Your task to perform on an android device: add a contact in the contacts app Image 0: 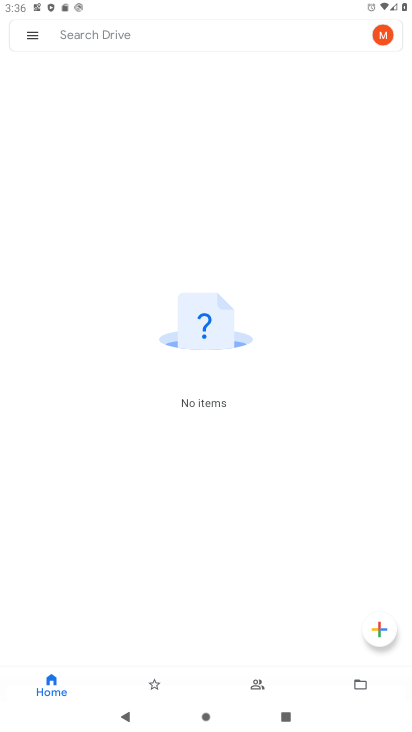
Step 0: press home button
Your task to perform on an android device: add a contact in the contacts app Image 1: 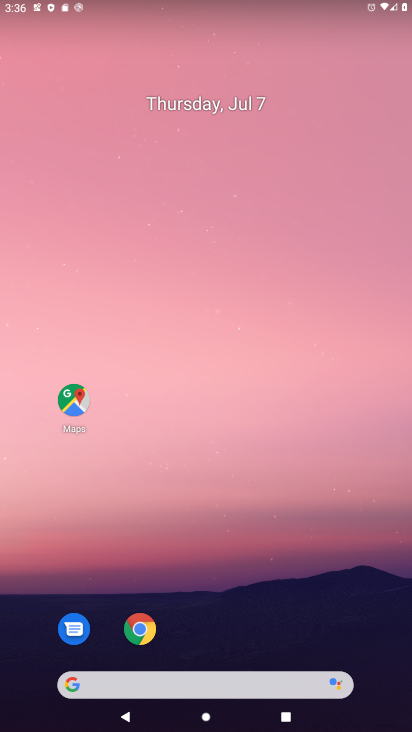
Step 1: drag from (198, 648) to (258, 163)
Your task to perform on an android device: add a contact in the contacts app Image 2: 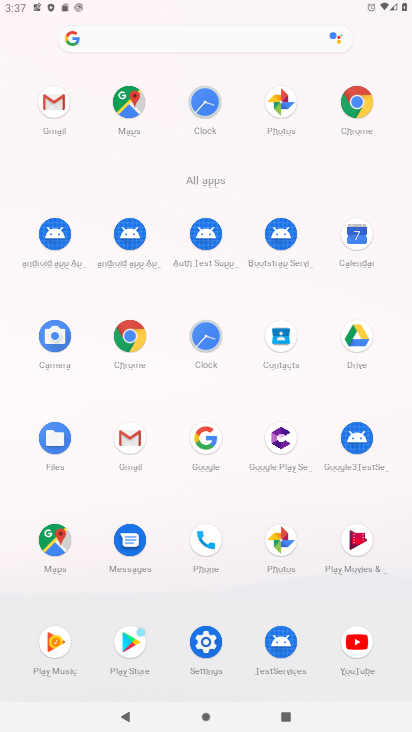
Step 2: click (274, 328)
Your task to perform on an android device: add a contact in the contacts app Image 3: 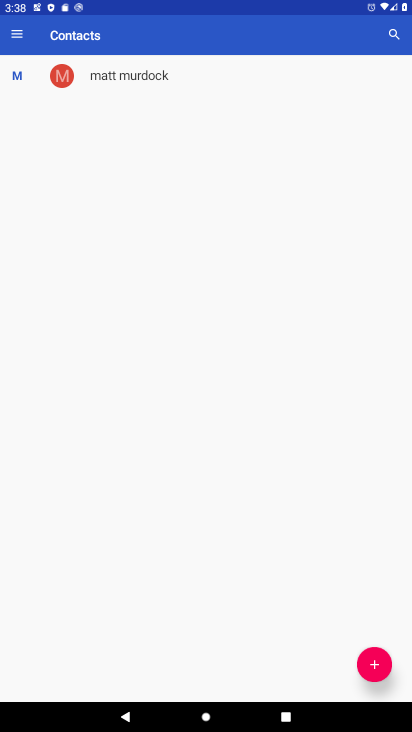
Step 3: click (375, 667)
Your task to perform on an android device: add a contact in the contacts app Image 4: 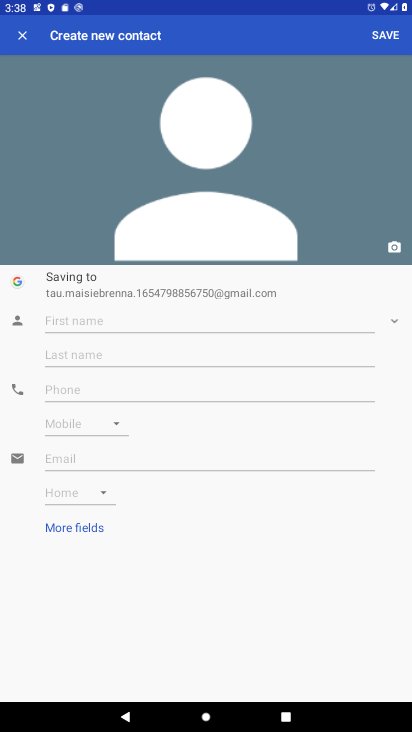
Step 4: click (86, 318)
Your task to perform on an android device: add a contact in the contacts app Image 5: 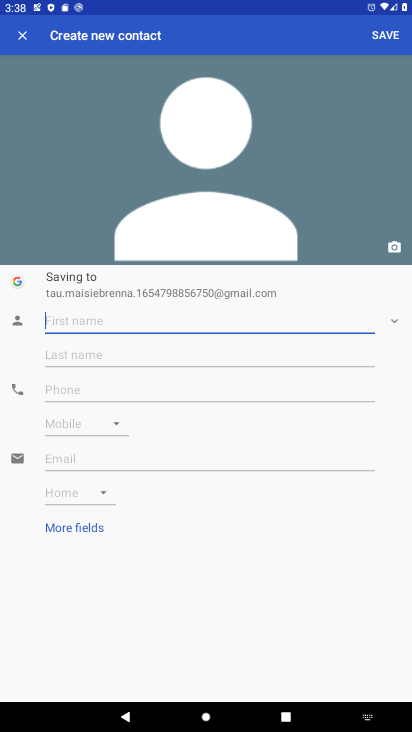
Step 5: type "oiujhgvc"
Your task to perform on an android device: add a contact in the contacts app Image 6: 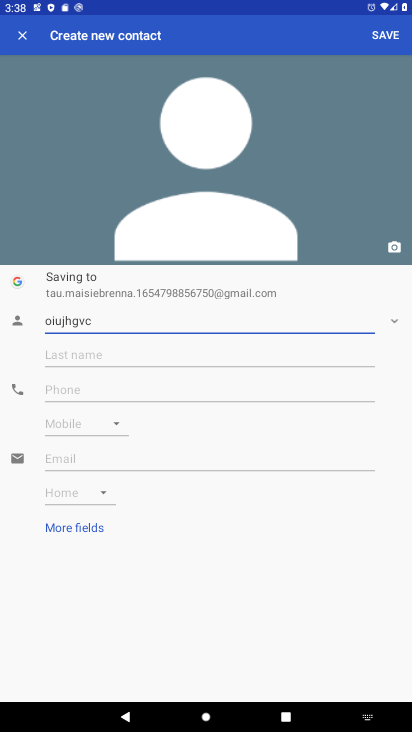
Step 6: click (71, 390)
Your task to perform on an android device: add a contact in the contacts app Image 7: 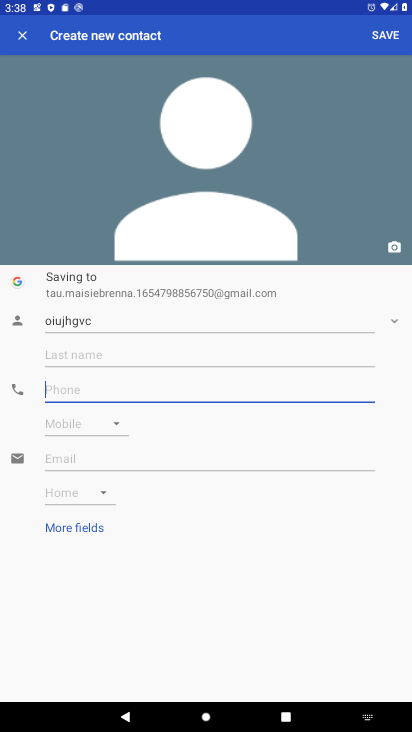
Step 7: type "234567890-"
Your task to perform on an android device: add a contact in the contacts app Image 8: 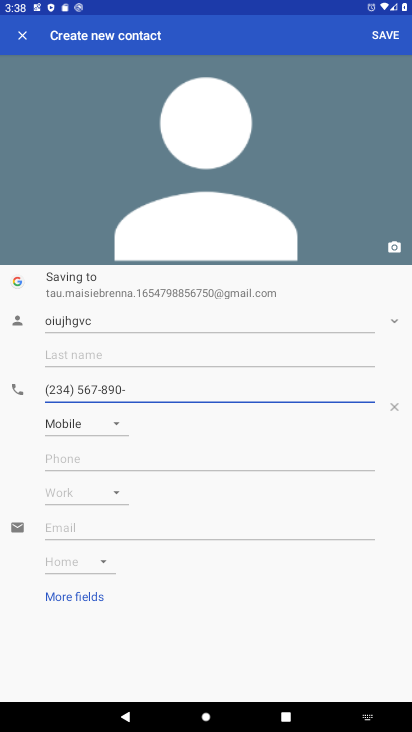
Step 8: click (389, 36)
Your task to perform on an android device: add a contact in the contacts app Image 9: 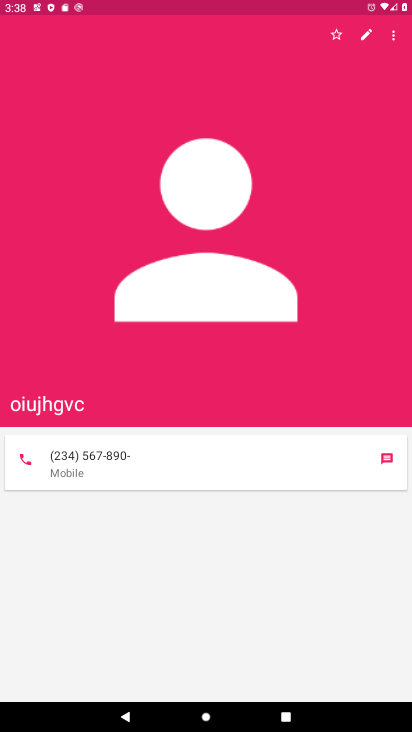
Step 9: task complete